Your task to perform on an android device: open device folders in google photos Image 0: 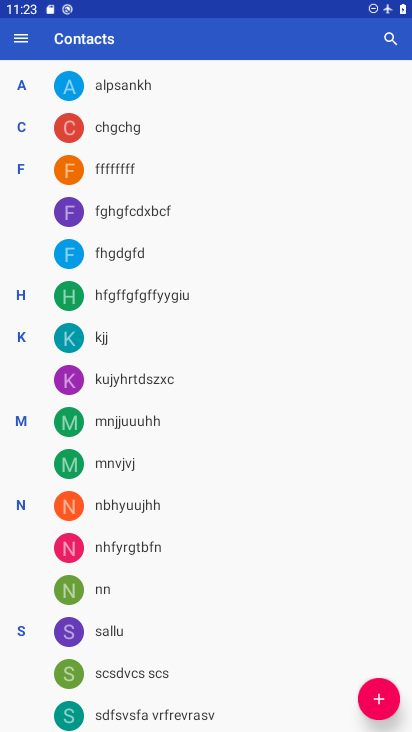
Step 0: press home button
Your task to perform on an android device: open device folders in google photos Image 1: 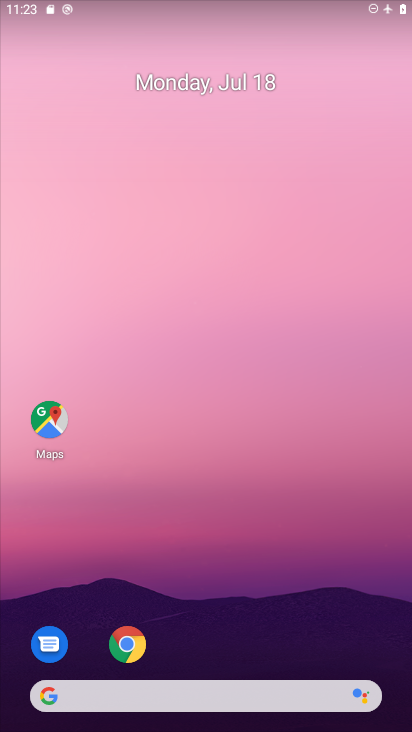
Step 1: drag from (195, 668) to (231, 102)
Your task to perform on an android device: open device folders in google photos Image 2: 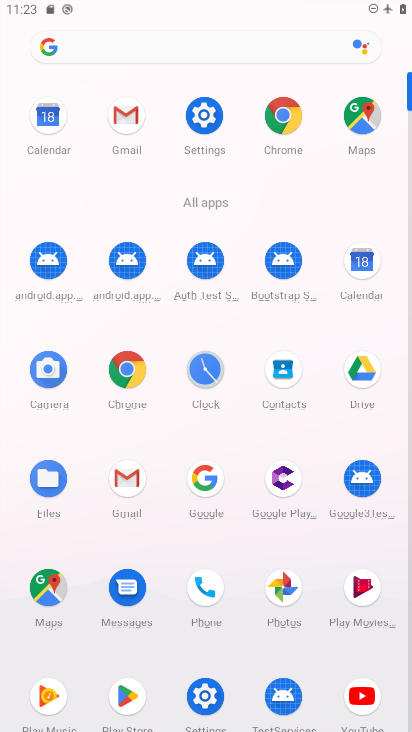
Step 2: click (279, 582)
Your task to perform on an android device: open device folders in google photos Image 3: 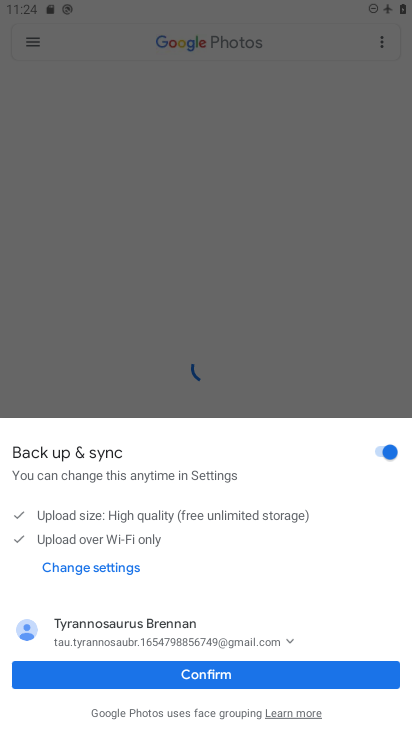
Step 3: click (254, 665)
Your task to perform on an android device: open device folders in google photos Image 4: 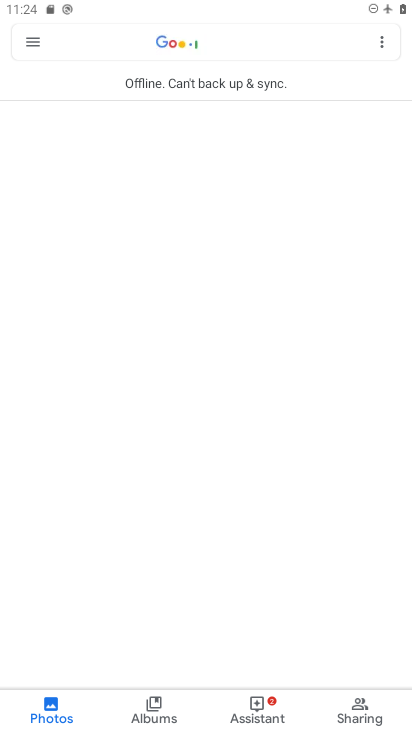
Step 4: click (32, 46)
Your task to perform on an android device: open device folders in google photos Image 5: 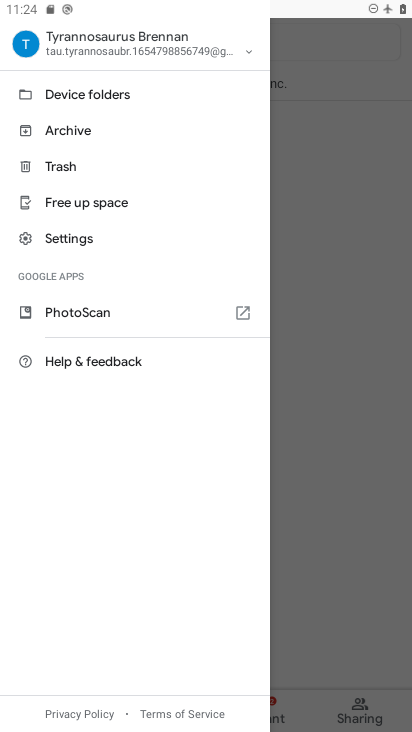
Step 5: click (64, 85)
Your task to perform on an android device: open device folders in google photos Image 6: 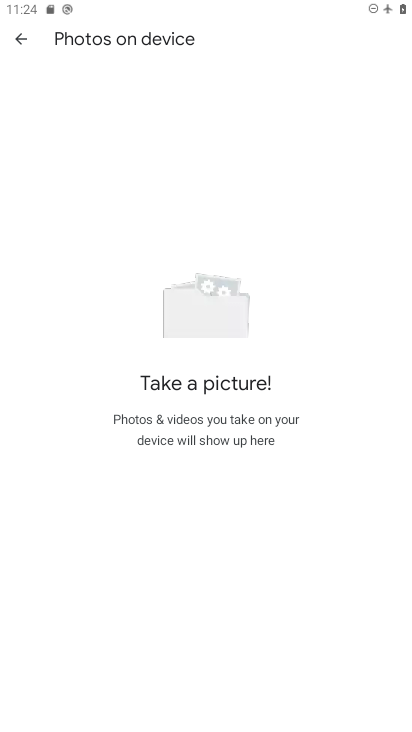
Step 6: task complete